Your task to perform on an android device: turn on airplane mode Image 0: 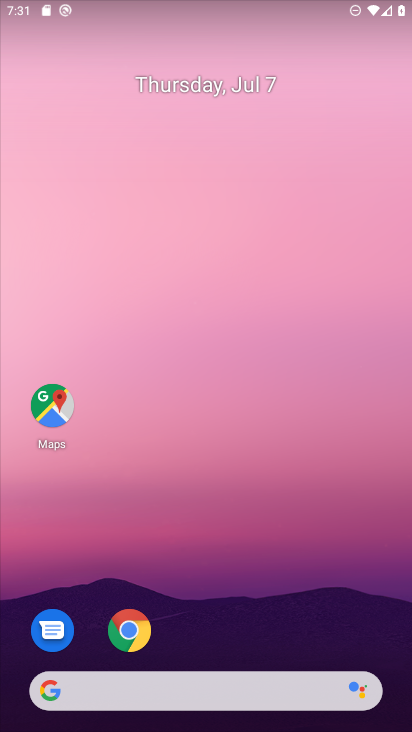
Step 0: drag from (217, 523) to (131, 40)
Your task to perform on an android device: turn on airplane mode Image 1: 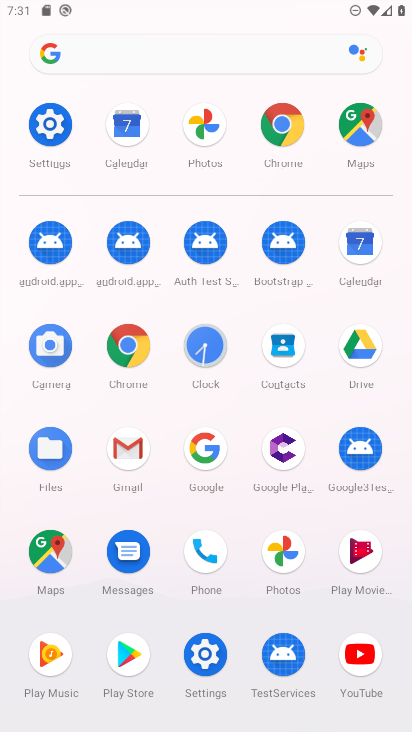
Step 1: click (45, 130)
Your task to perform on an android device: turn on airplane mode Image 2: 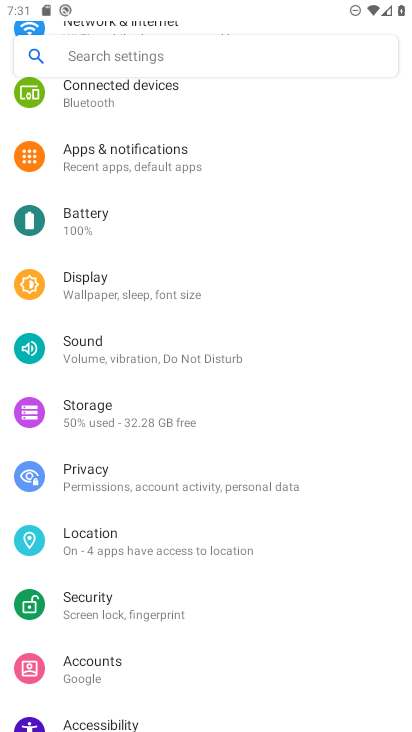
Step 2: drag from (267, 170) to (345, 575)
Your task to perform on an android device: turn on airplane mode Image 3: 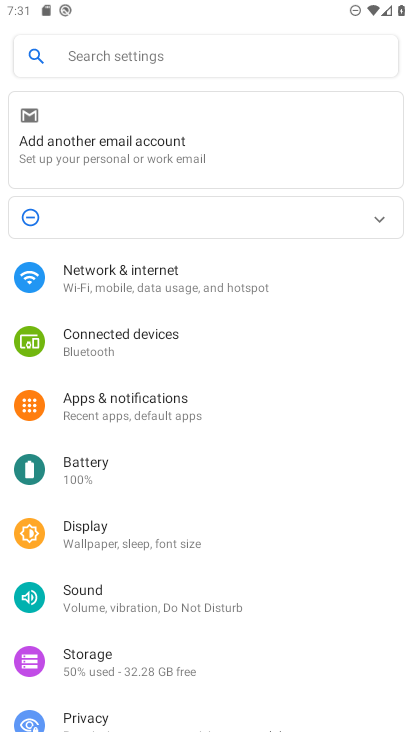
Step 3: click (145, 267)
Your task to perform on an android device: turn on airplane mode Image 4: 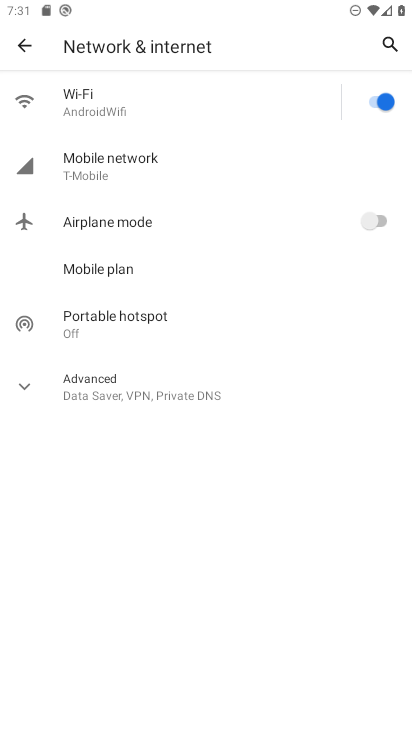
Step 4: click (370, 212)
Your task to perform on an android device: turn on airplane mode Image 5: 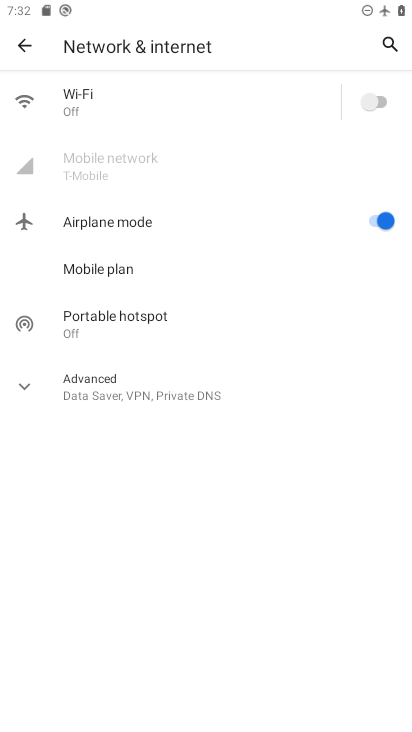
Step 5: task complete